Your task to perform on an android device: Open display settings Image 0: 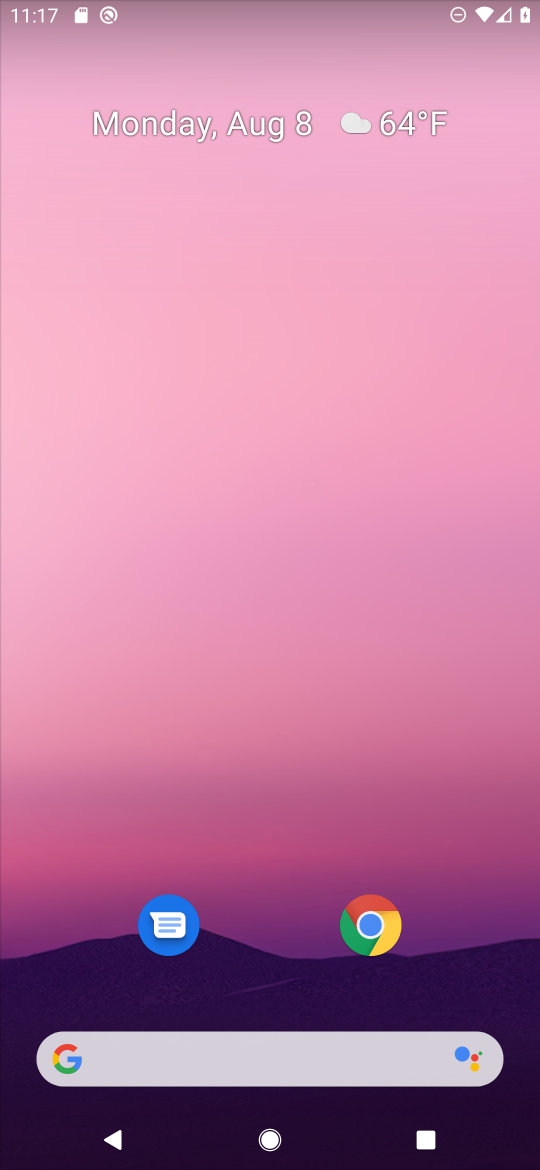
Step 0: drag from (261, 962) to (453, 81)
Your task to perform on an android device: Open display settings Image 1: 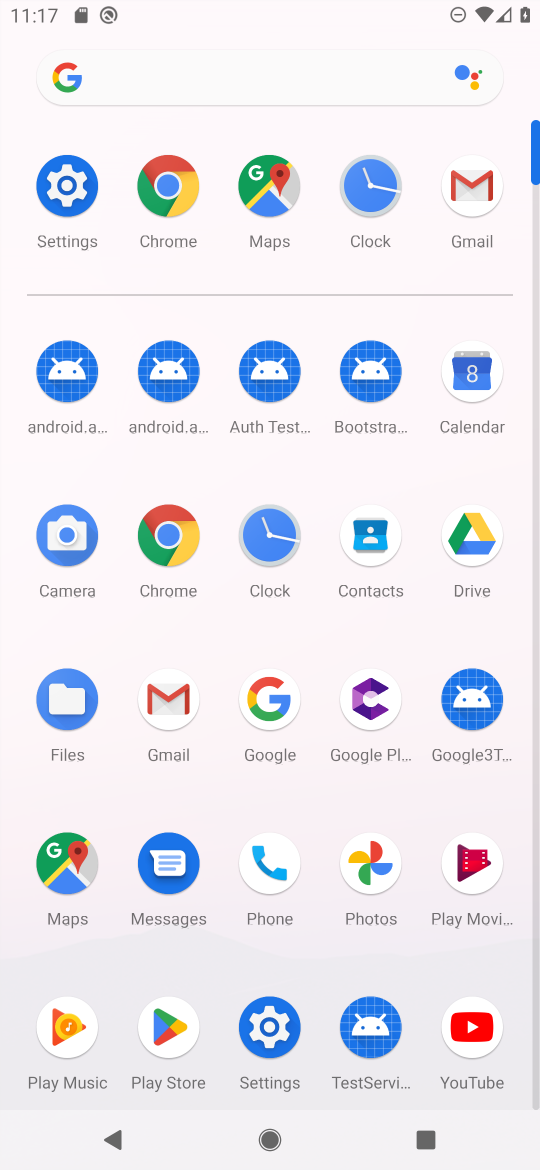
Step 1: click (254, 1031)
Your task to perform on an android device: Open display settings Image 2: 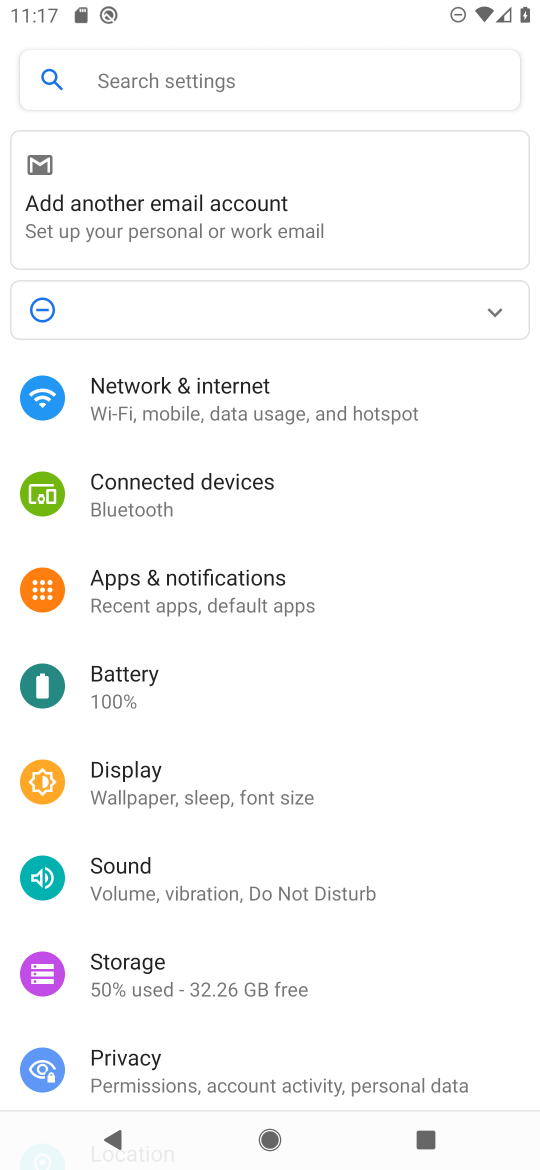
Step 2: click (157, 793)
Your task to perform on an android device: Open display settings Image 3: 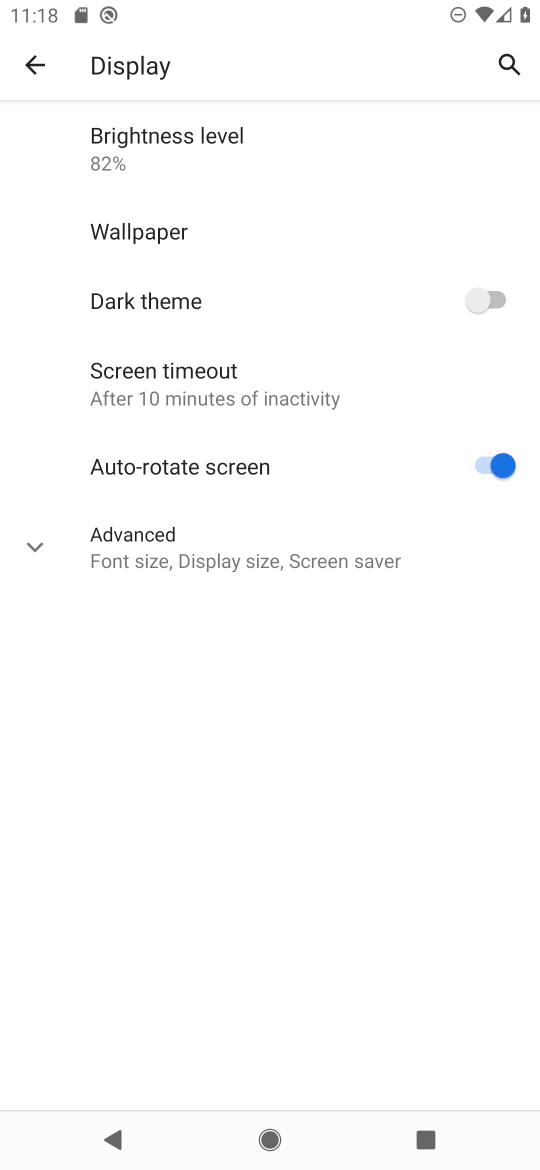
Step 3: task complete